Your task to perform on an android device: toggle data saver in the chrome app Image 0: 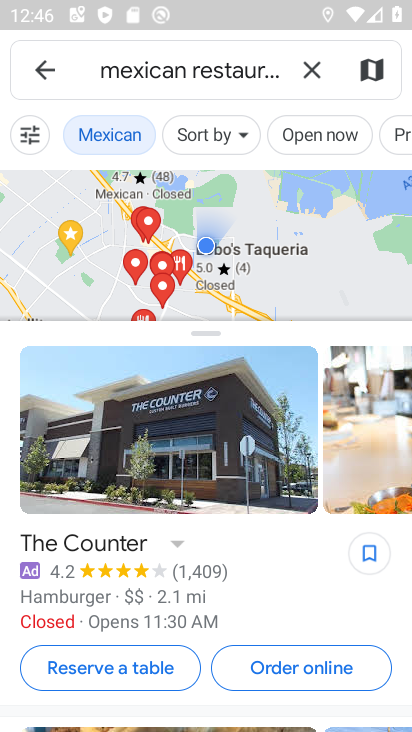
Step 0: press home button
Your task to perform on an android device: toggle data saver in the chrome app Image 1: 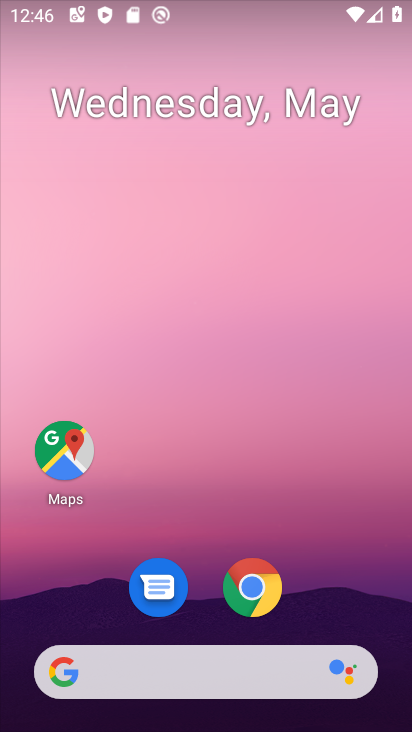
Step 1: drag from (383, 594) to (386, 209)
Your task to perform on an android device: toggle data saver in the chrome app Image 2: 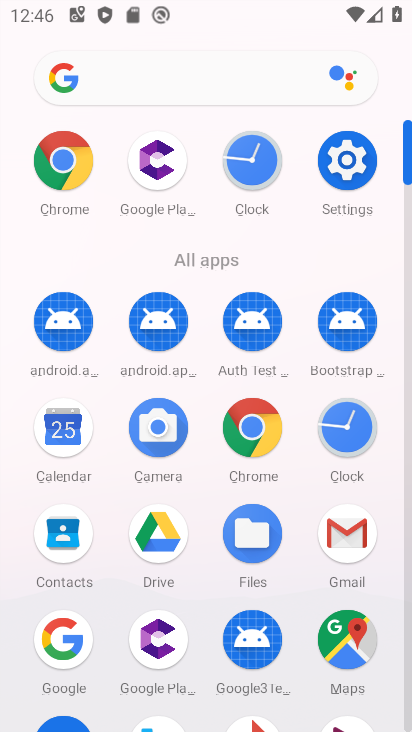
Step 2: click (260, 437)
Your task to perform on an android device: toggle data saver in the chrome app Image 3: 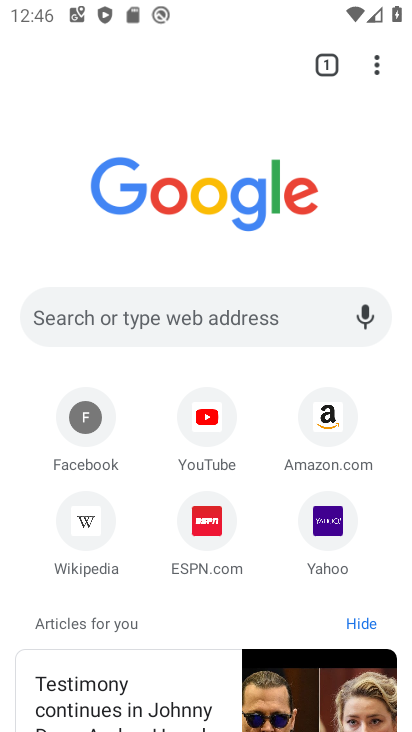
Step 3: click (380, 68)
Your task to perform on an android device: toggle data saver in the chrome app Image 4: 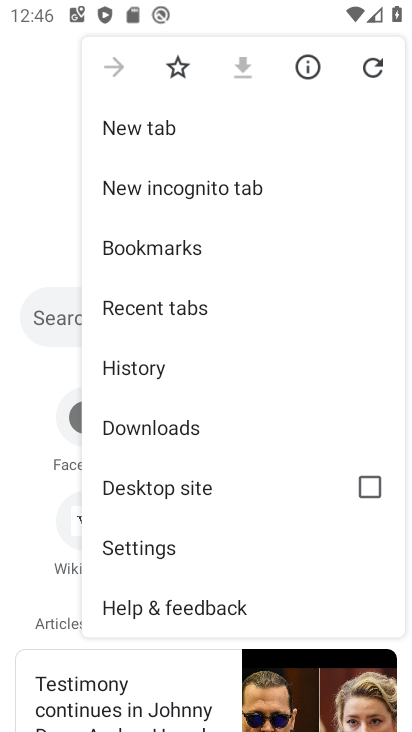
Step 4: click (178, 553)
Your task to perform on an android device: toggle data saver in the chrome app Image 5: 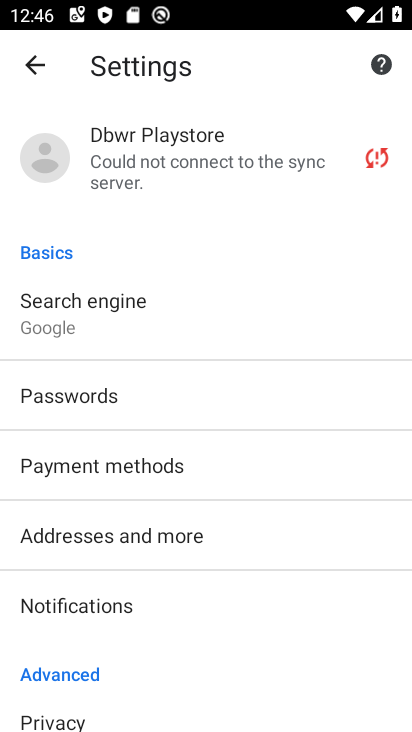
Step 5: drag from (315, 609) to (343, 478)
Your task to perform on an android device: toggle data saver in the chrome app Image 6: 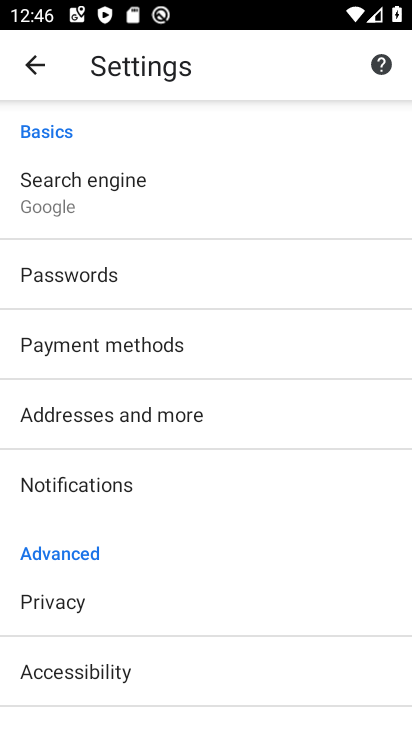
Step 6: drag from (353, 628) to (358, 512)
Your task to perform on an android device: toggle data saver in the chrome app Image 7: 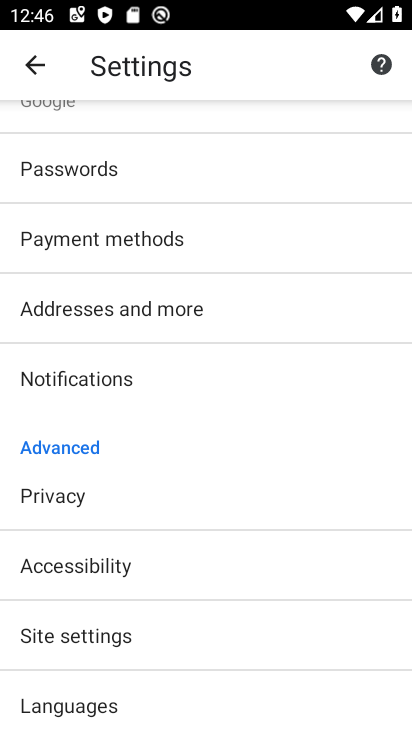
Step 7: drag from (327, 651) to (328, 512)
Your task to perform on an android device: toggle data saver in the chrome app Image 8: 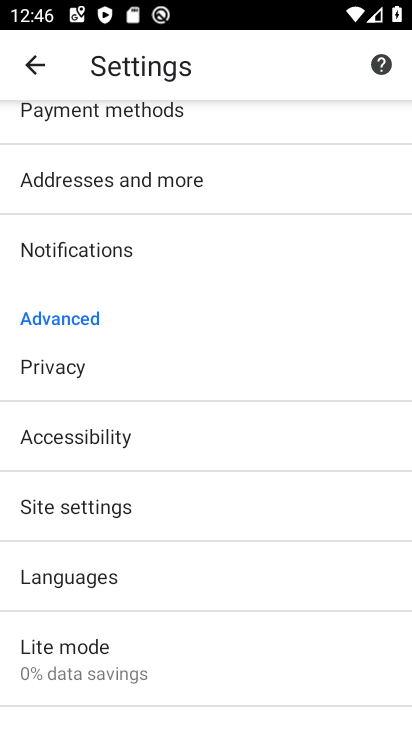
Step 8: drag from (324, 642) to (336, 532)
Your task to perform on an android device: toggle data saver in the chrome app Image 9: 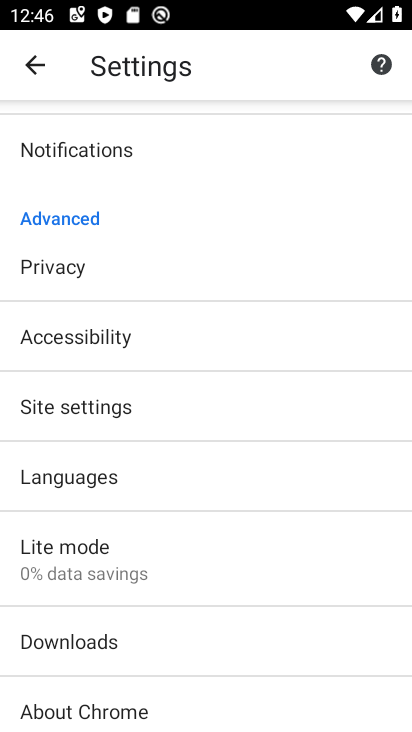
Step 9: drag from (340, 632) to (342, 550)
Your task to perform on an android device: toggle data saver in the chrome app Image 10: 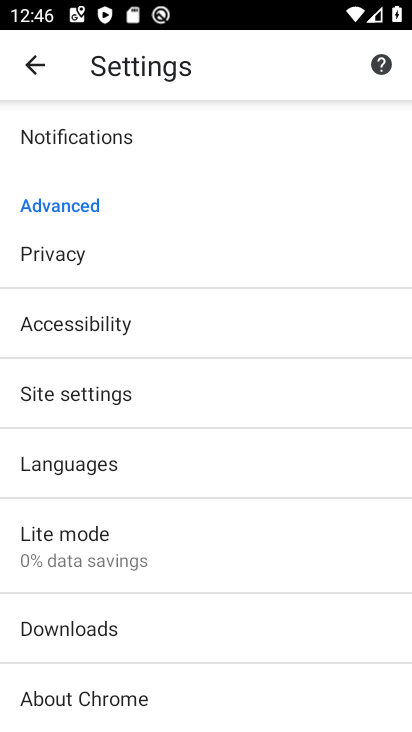
Step 10: click (343, 548)
Your task to perform on an android device: toggle data saver in the chrome app Image 11: 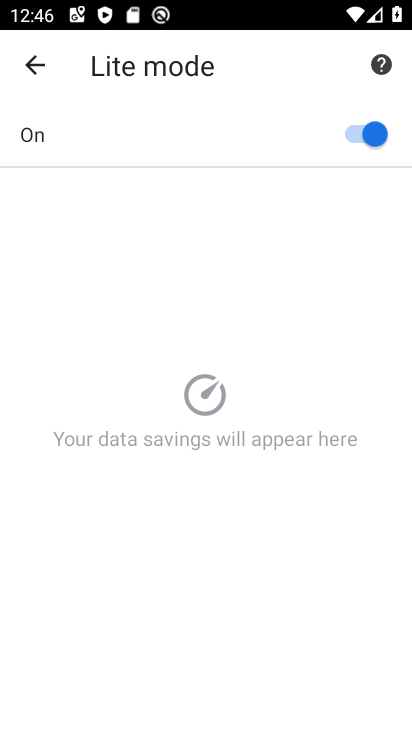
Step 11: click (346, 140)
Your task to perform on an android device: toggle data saver in the chrome app Image 12: 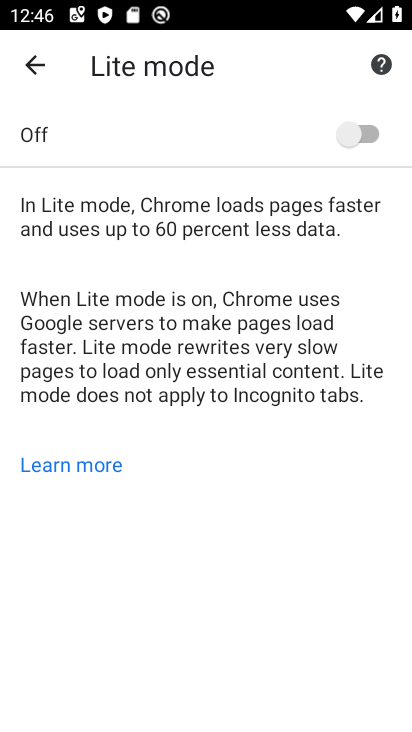
Step 12: task complete